Your task to perform on an android device: change the clock style Image 0: 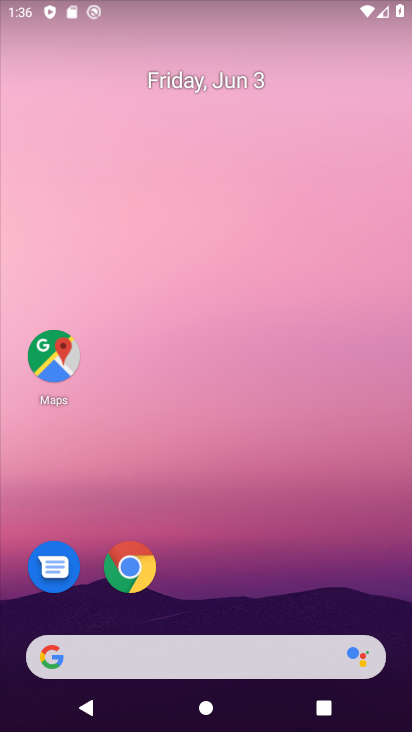
Step 0: drag from (300, 469) to (297, 16)
Your task to perform on an android device: change the clock style Image 1: 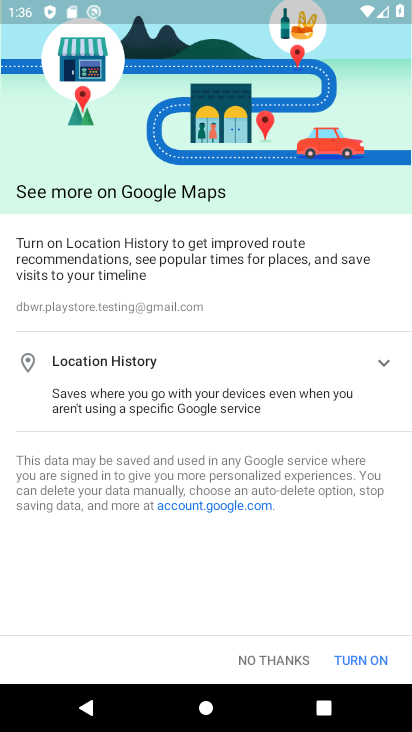
Step 1: click (262, 666)
Your task to perform on an android device: change the clock style Image 2: 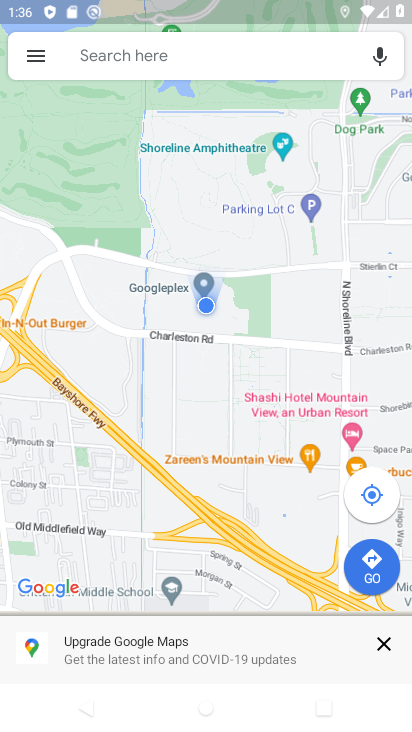
Step 2: press back button
Your task to perform on an android device: change the clock style Image 3: 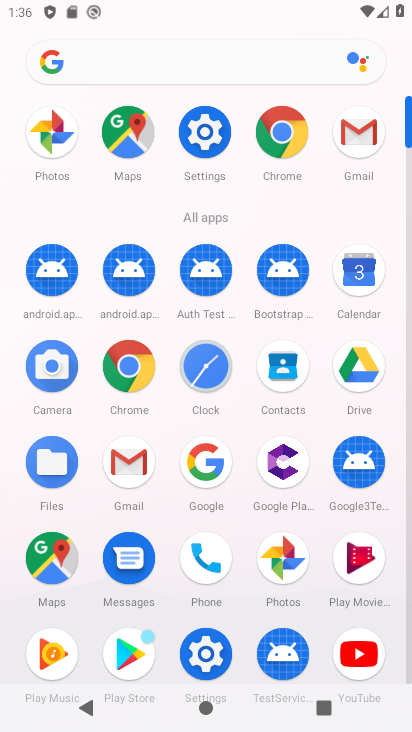
Step 3: click (190, 369)
Your task to perform on an android device: change the clock style Image 4: 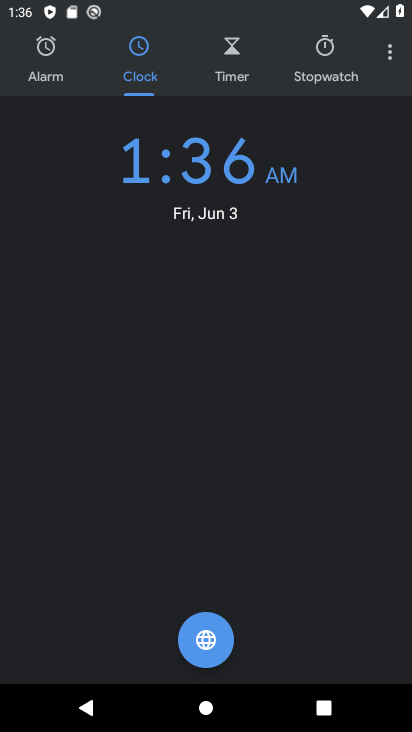
Step 4: click (387, 47)
Your task to perform on an android device: change the clock style Image 5: 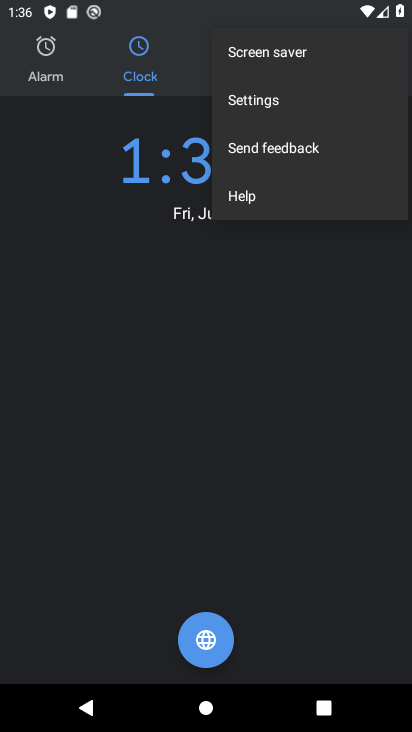
Step 5: click (271, 108)
Your task to perform on an android device: change the clock style Image 6: 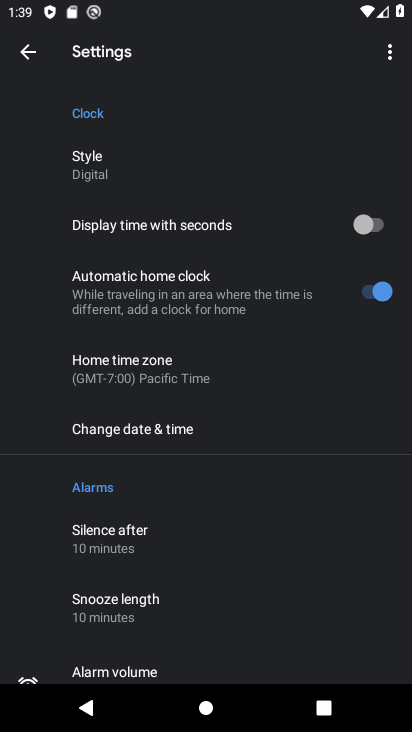
Step 6: click (160, 165)
Your task to perform on an android device: change the clock style Image 7: 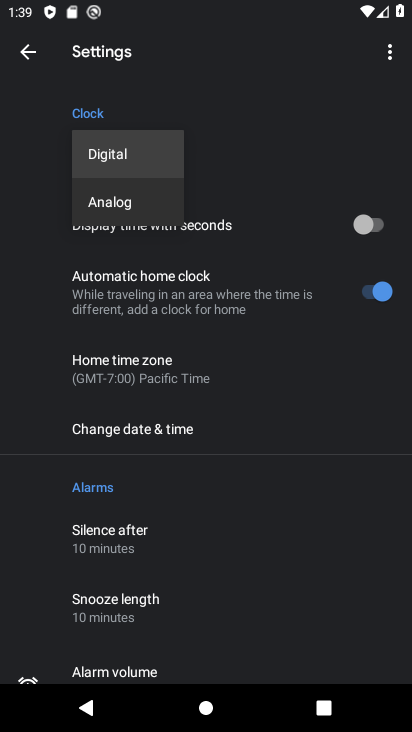
Step 7: click (135, 200)
Your task to perform on an android device: change the clock style Image 8: 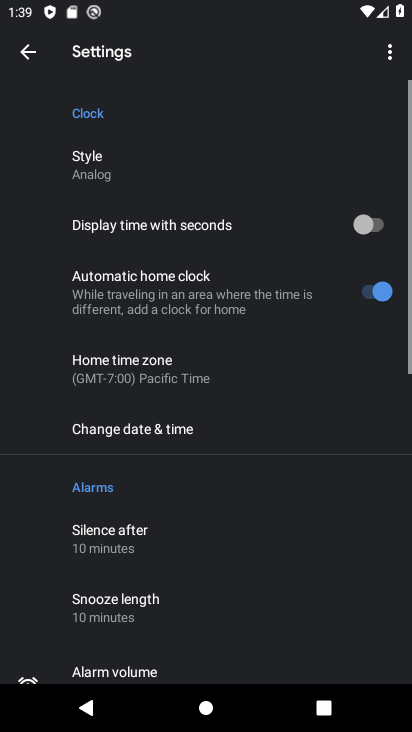
Step 8: task complete